Your task to perform on an android device: Open calendar and show me the second week of next month Image 0: 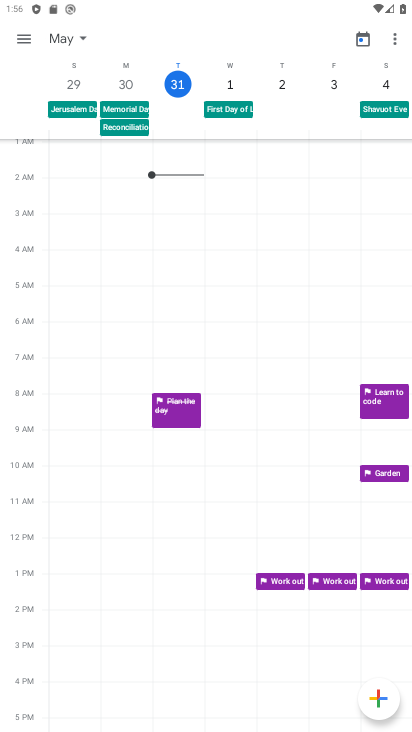
Step 0: press home button
Your task to perform on an android device: Open calendar and show me the second week of next month Image 1: 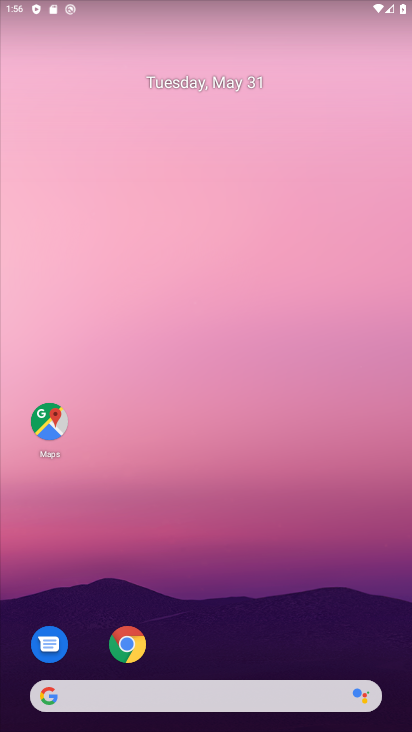
Step 1: drag from (303, 597) to (293, 88)
Your task to perform on an android device: Open calendar and show me the second week of next month Image 2: 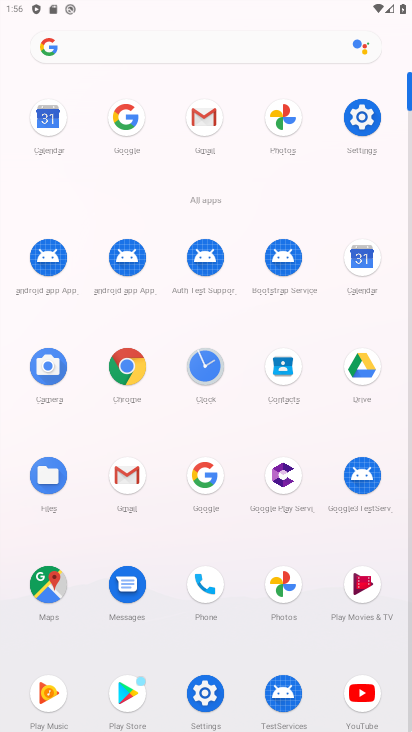
Step 2: drag from (235, 516) to (290, 231)
Your task to perform on an android device: Open calendar and show me the second week of next month Image 3: 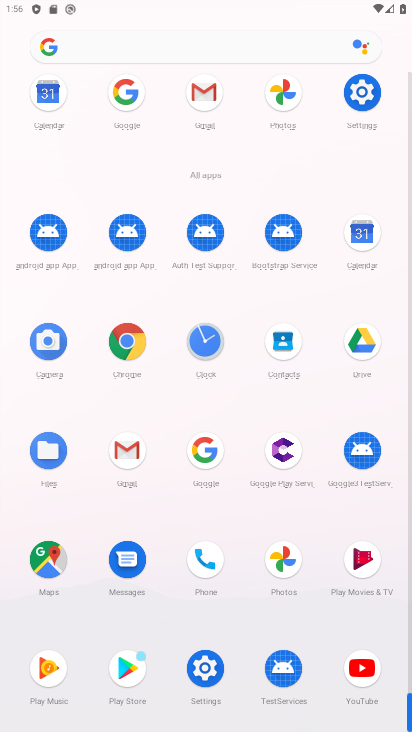
Step 3: click (364, 240)
Your task to perform on an android device: Open calendar and show me the second week of next month Image 4: 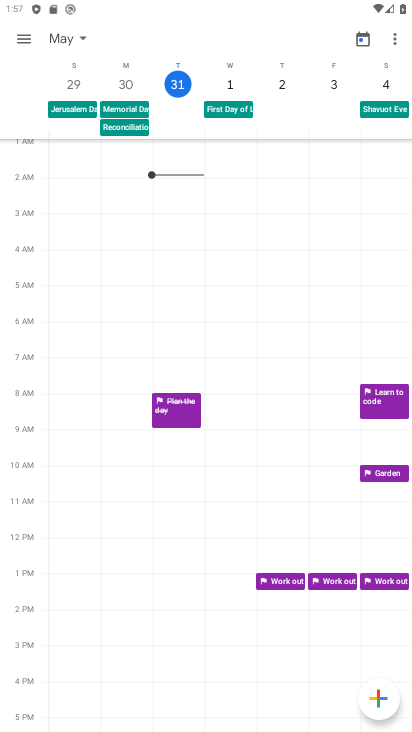
Step 4: click (59, 37)
Your task to perform on an android device: Open calendar and show me the second week of next month Image 5: 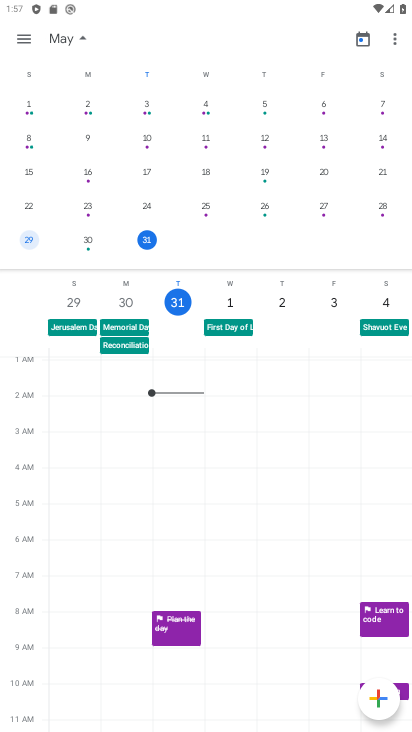
Step 5: drag from (362, 210) to (0, 191)
Your task to perform on an android device: Open calendar and show me the second week of next month Image 6: 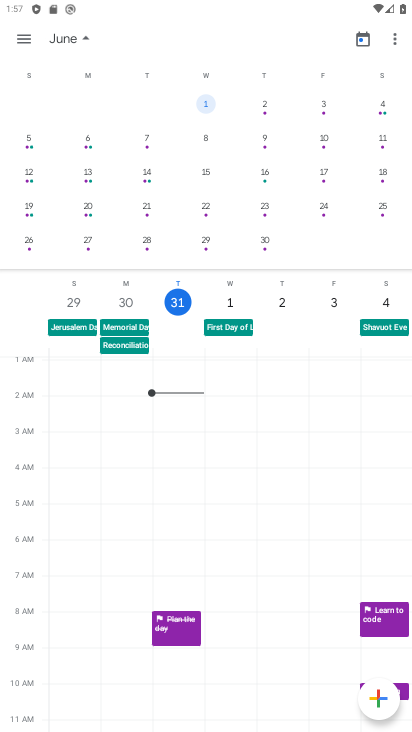
Step 6: click (32, 179)
Your task to perform on an android device: Open calendar and show me the second week of next month Image 7: 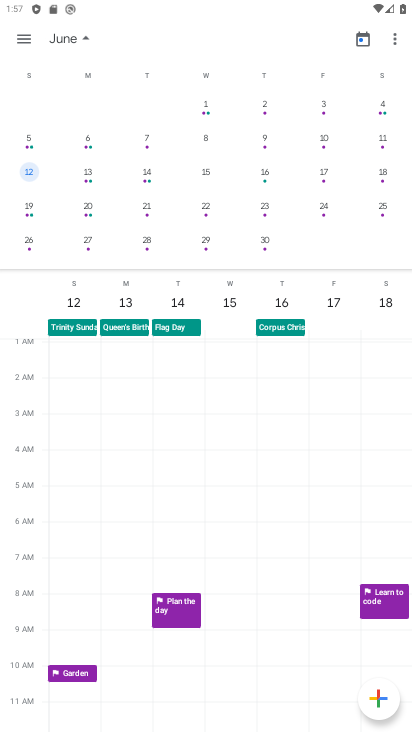
Step 7: task complete